Your task to perform on an android device: Open settings Image 0: 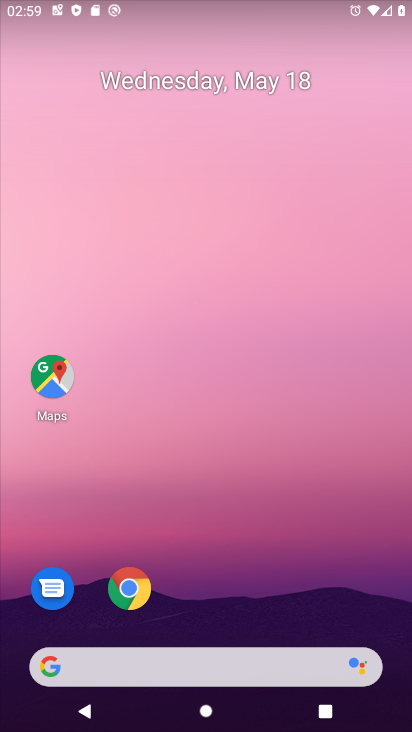
Step 0: press home button
Your task to perform on an android device: Open settings Image 1: 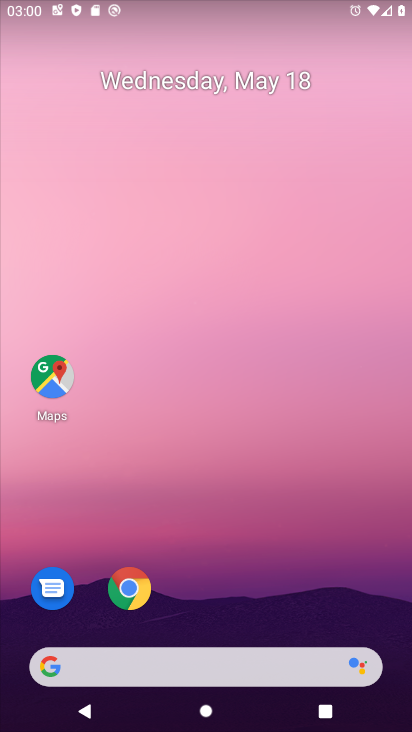
Step 1: drag from (17, 652) to (237, 117)
Your task to perform on an android device: Open settings Image 2: 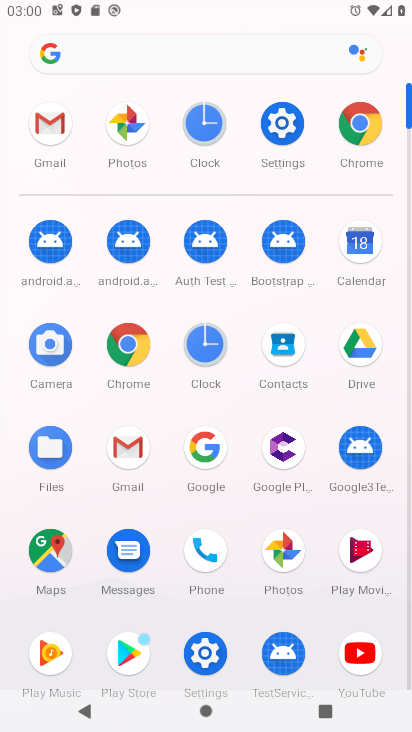
Step 2: click (281, 125)
Your task to perform on an android device: Open settings Image 3: 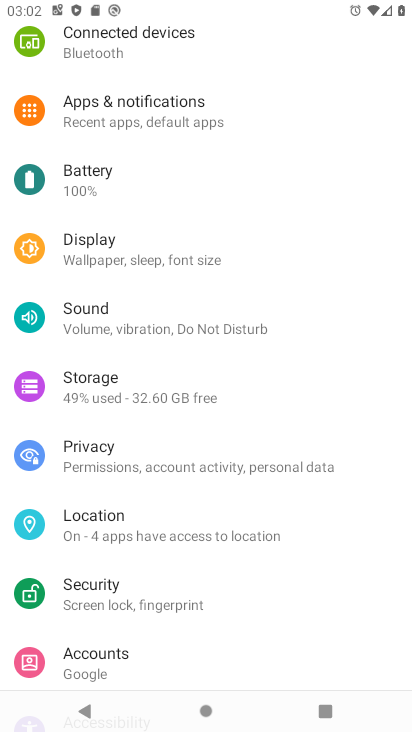
Step 3: task complete